Your task to perform on an android device: Open battery settings Image 0: 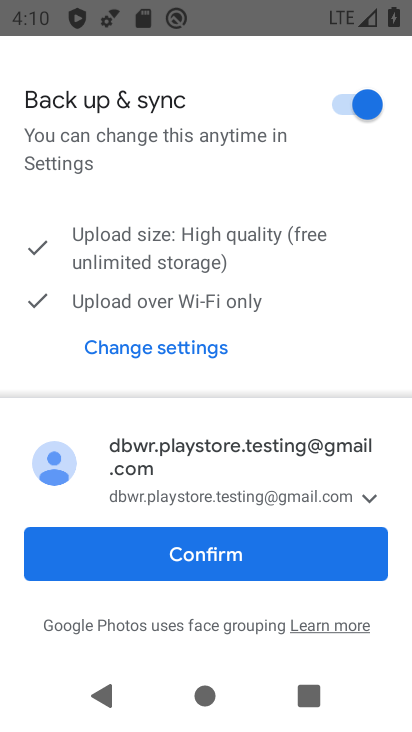
Step 0: press home button
Your task to perform on an android device: Open battery settings Image 1: 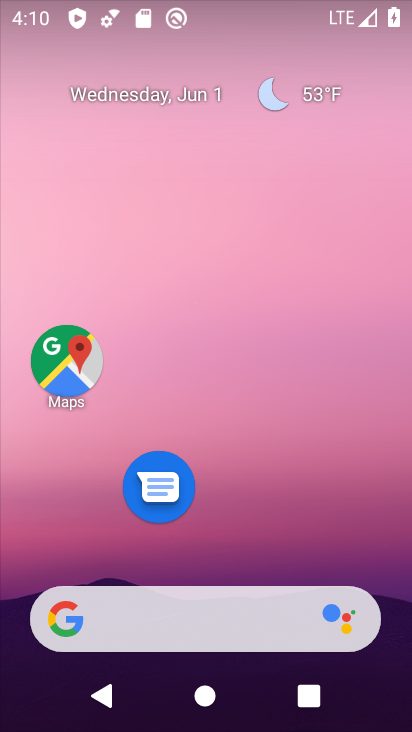
Step 1: drag from (208, 554) to (255, 126)
Your task to perform on an android device: Open battery settings Image 2: 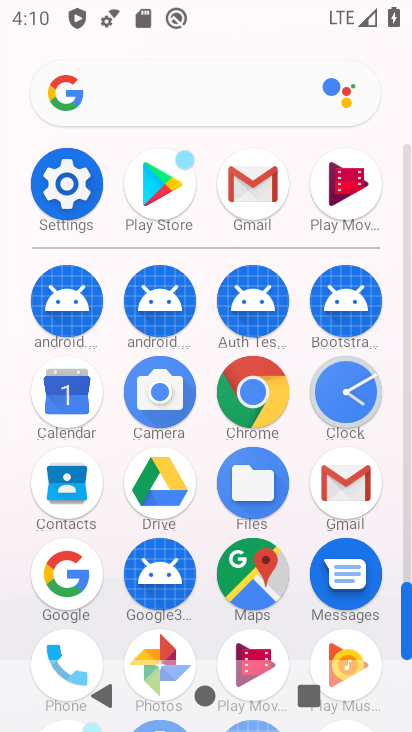
Step 2: click (67, 189)
Your task to perform on an android device: Open battery settings Image 3: 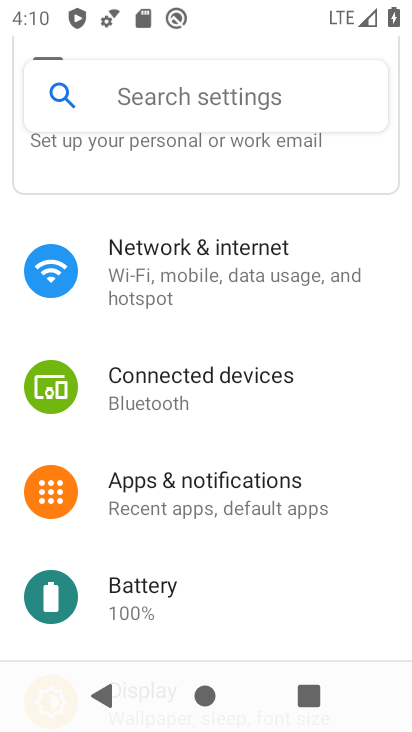
Step 3: click (180, 594)
Your task to perform on an android device: Open battery settings Image 4: 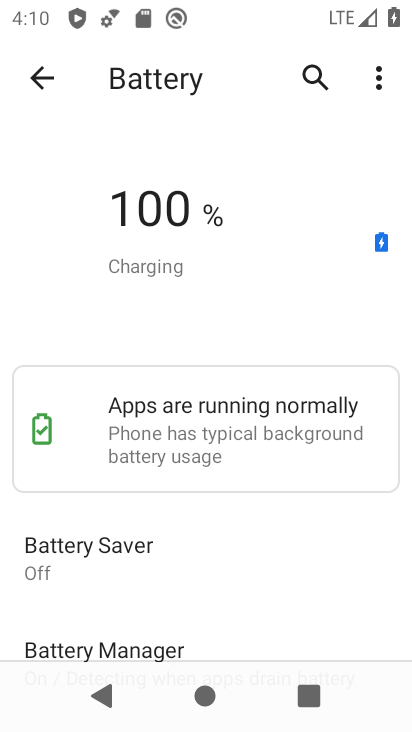
Step 4: task complete